Your task to perform on an android device: Do I have any events tomorrow? Image 0: 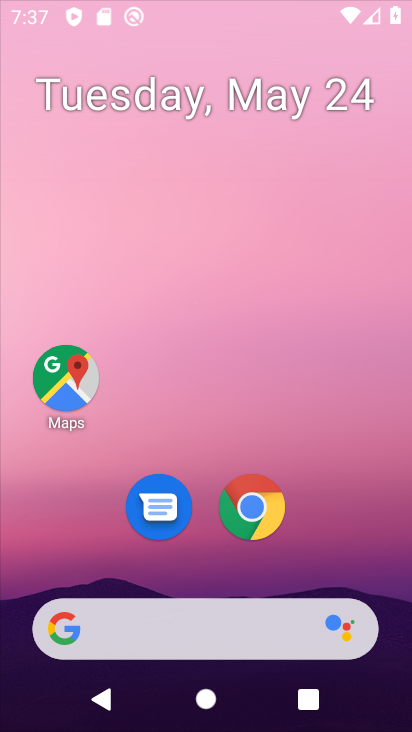
Step 0: press home button
Your task to perform on an android device: Do I have any events tomorrow? Image 1: 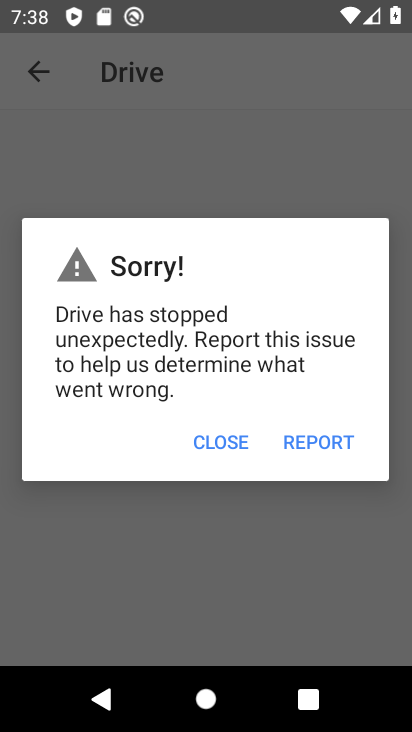
Step 1: drag from (301, 243) to (369, 4)
Your task to perform on an android device: Do I have any events tomorrow? Image 2: 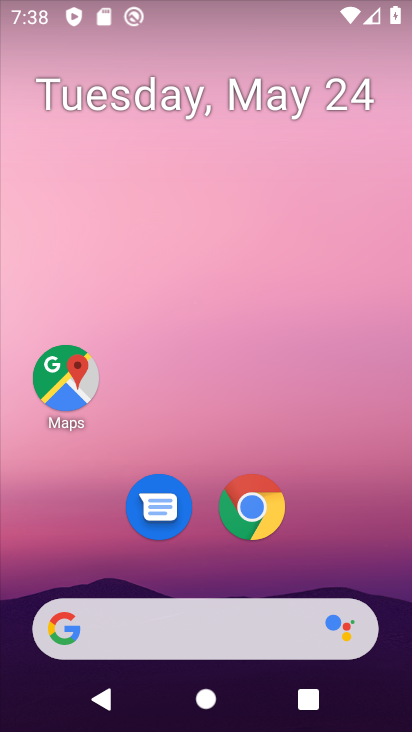
Step 2: drag from (177, 624) to (341, 75)
Your task to perform on an android device: Do I have any events tomorrow? Image 3: 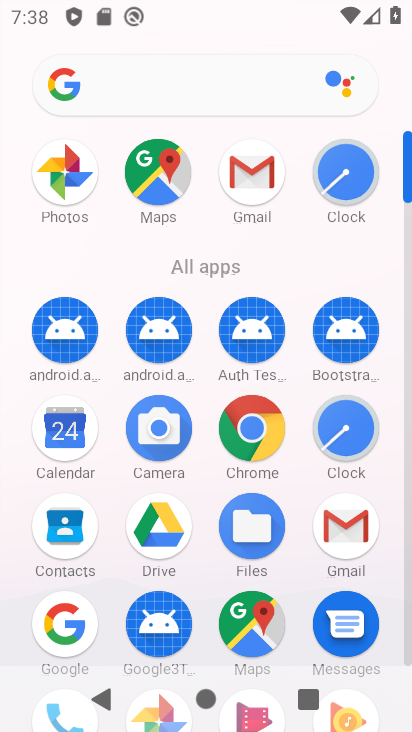
Step 3: drag from (196, 573) to (324, 165)
Your task to perform on an android device: Do I have any events tomorrow? Image 4: 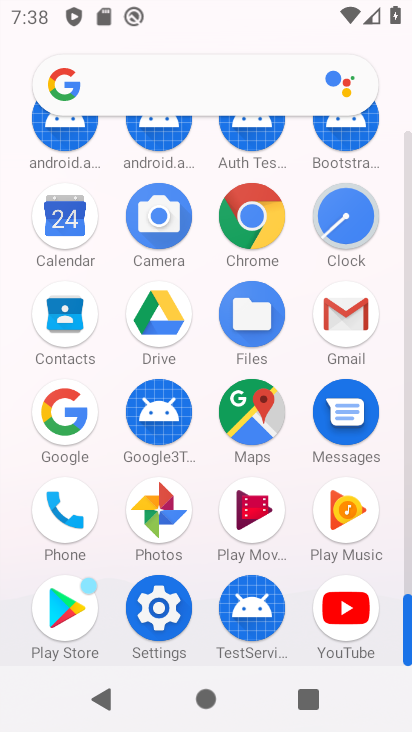
Step 4: click (62, 229)
Your task to perform on an android device: Do I have any events tomorrow? Image 5: 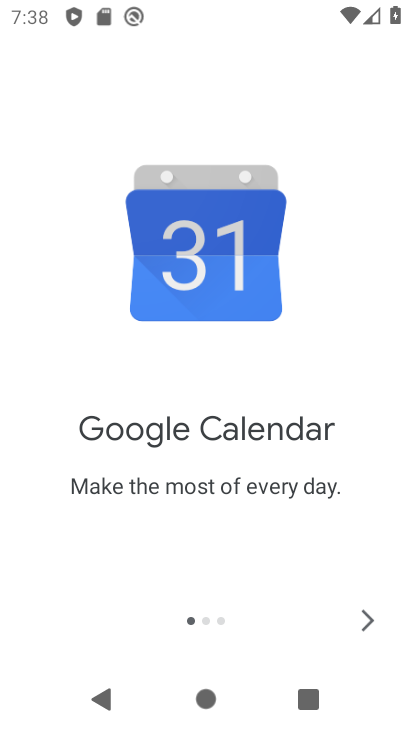
Step 5: click (360, 615)
Your task to perform on an android device: Do I have any events tomorrow? Image 6: 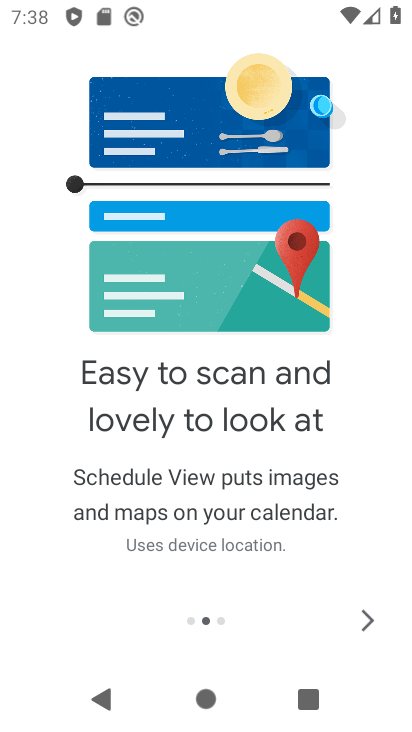
Step 6: click (360, 615)
Your task to perform on an android device: Do I have any events tomorrow? Image 7: 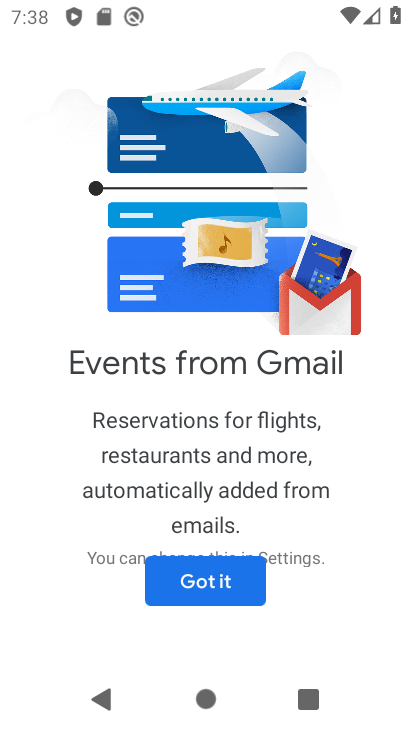
Step 7: click (211, 587)
Your task to perform on an android device: Do I have any events tomorrow? Image 8: 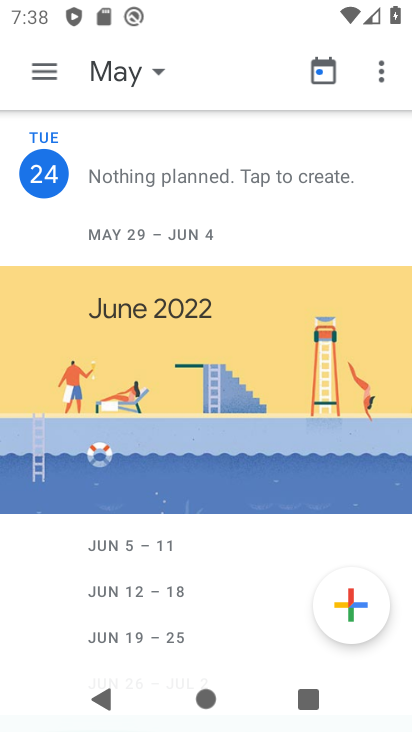
Step 8: click (121, 78)
Your task to perform on an android device: Do I have any events tomorrow? Image 9: 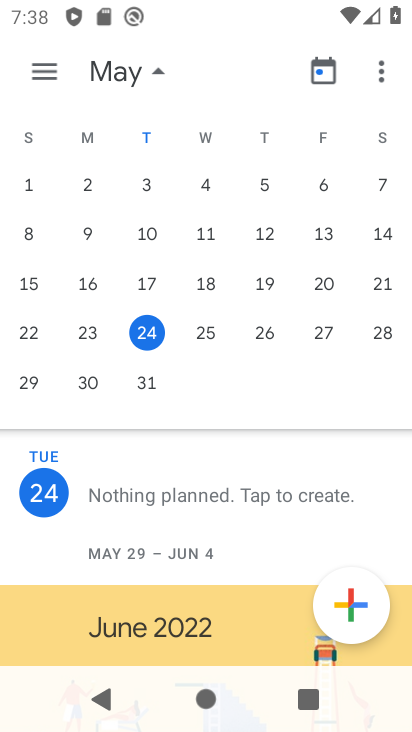
Step 9: click (196, 329)
Your task to perform on an android device: Do I have any events tomorrow? Image 10: 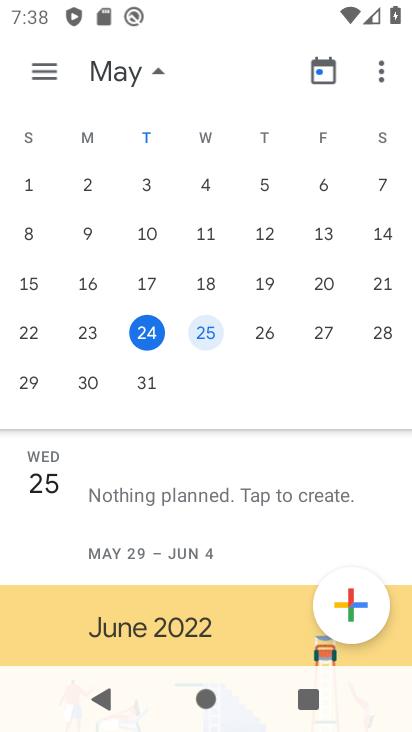
Step 10: click (53, 69)
Your task to perform on an android device: Do I have any events tomorrow? Image 11: 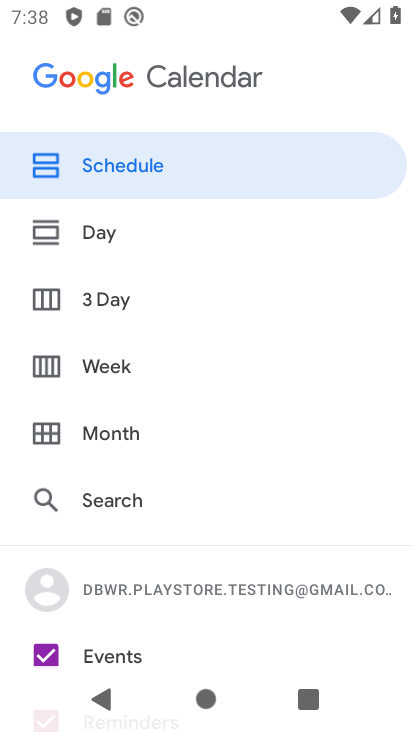
Step 11: click (114, 170)
Your task to perform on an android device: Do I have any events tomorrow? Image 12: 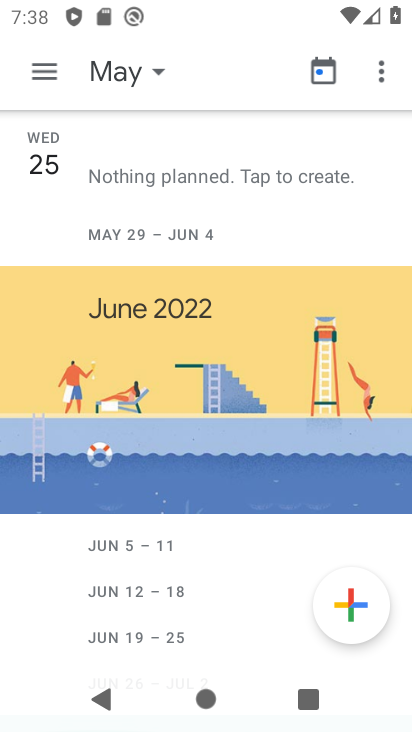
Step 12: drag from (201, 603) to (266, 474)
Your task to perform on an android device: Do I have any events tomorrow? Image 13: 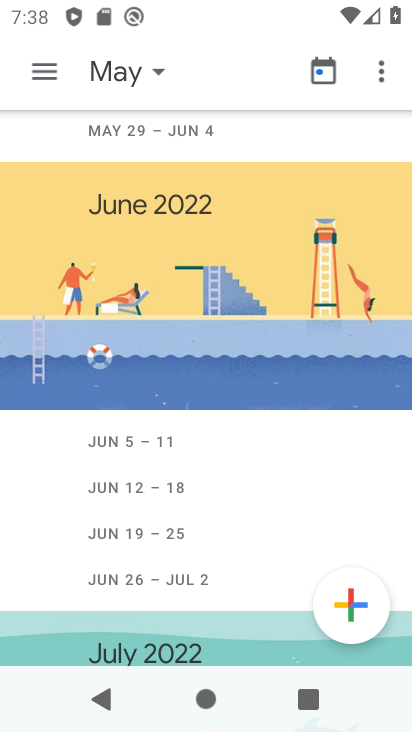
Step 13: drag from (171, 208) to (163, 597)
Your task to perform on an android device: Do I have any events tomorrow? Image 14: 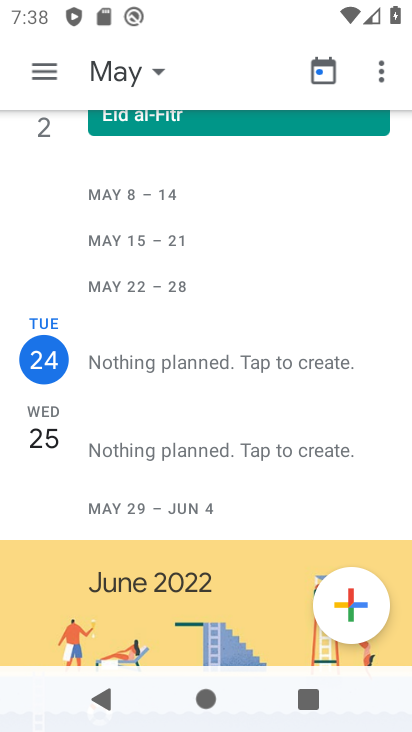
Step 14: drag from (260, 271) to (244, 405)
Your task to perform on an android device: Do I have any events tomorrow? Image 15: 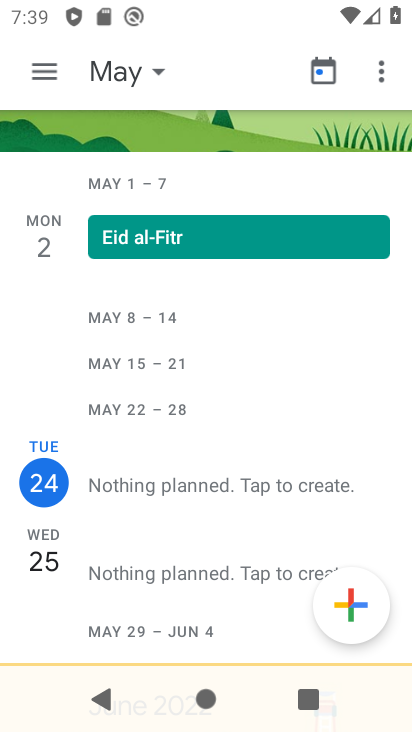
Step 15: click (115, 70)
Your task to perform on an android device: Do I have any events tomorrow? Image 16: 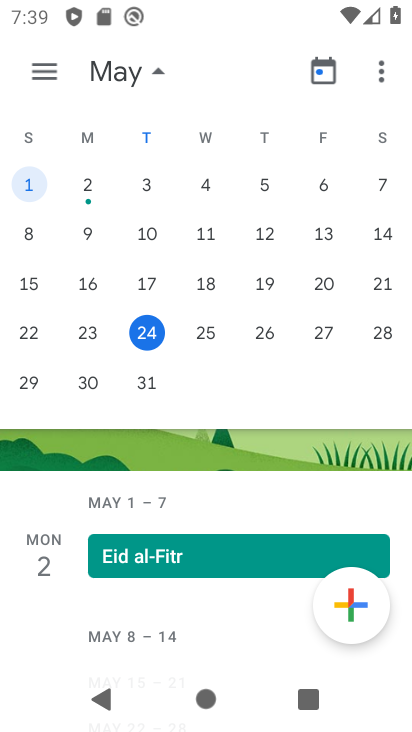
Step 16: click (205, 327)
Your task to perform on an android device: Do I have any events tomorrow? Image 17: 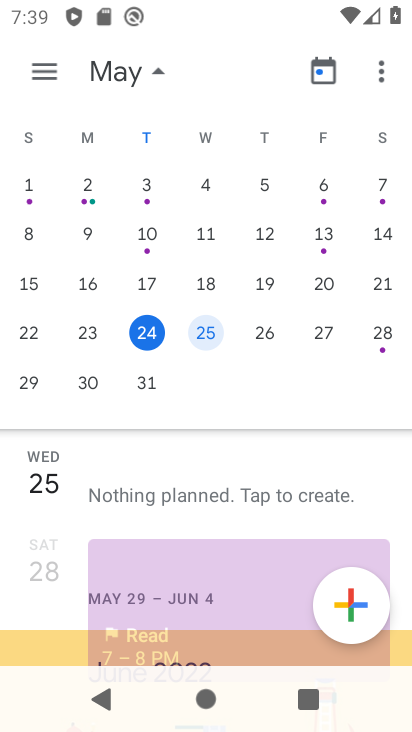
Step 17: task complete